Your task to perform on an android device: Check the settings for the Google Chrome app Image 0: 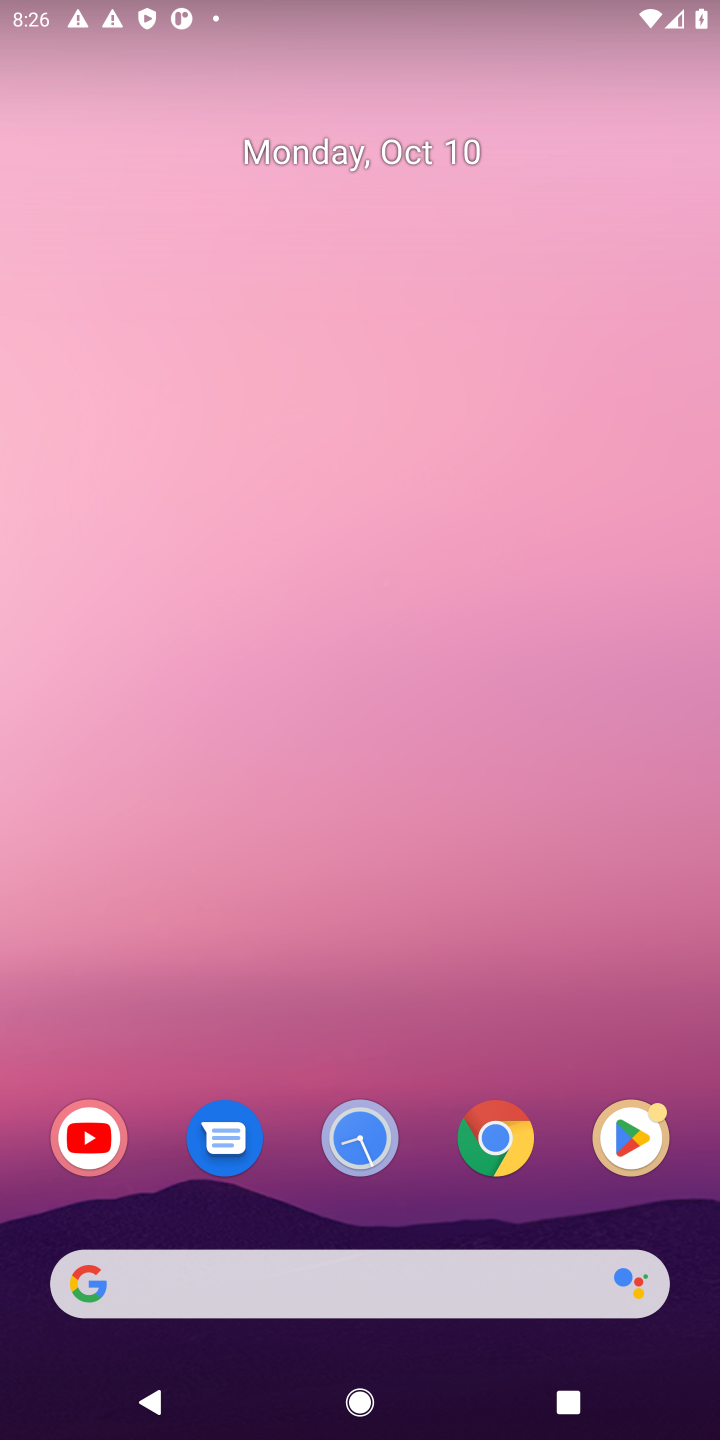
Step 0: click (500, 1142)
Your task to perform on an android device: Check the settings for the Google Chrome app Image 1: 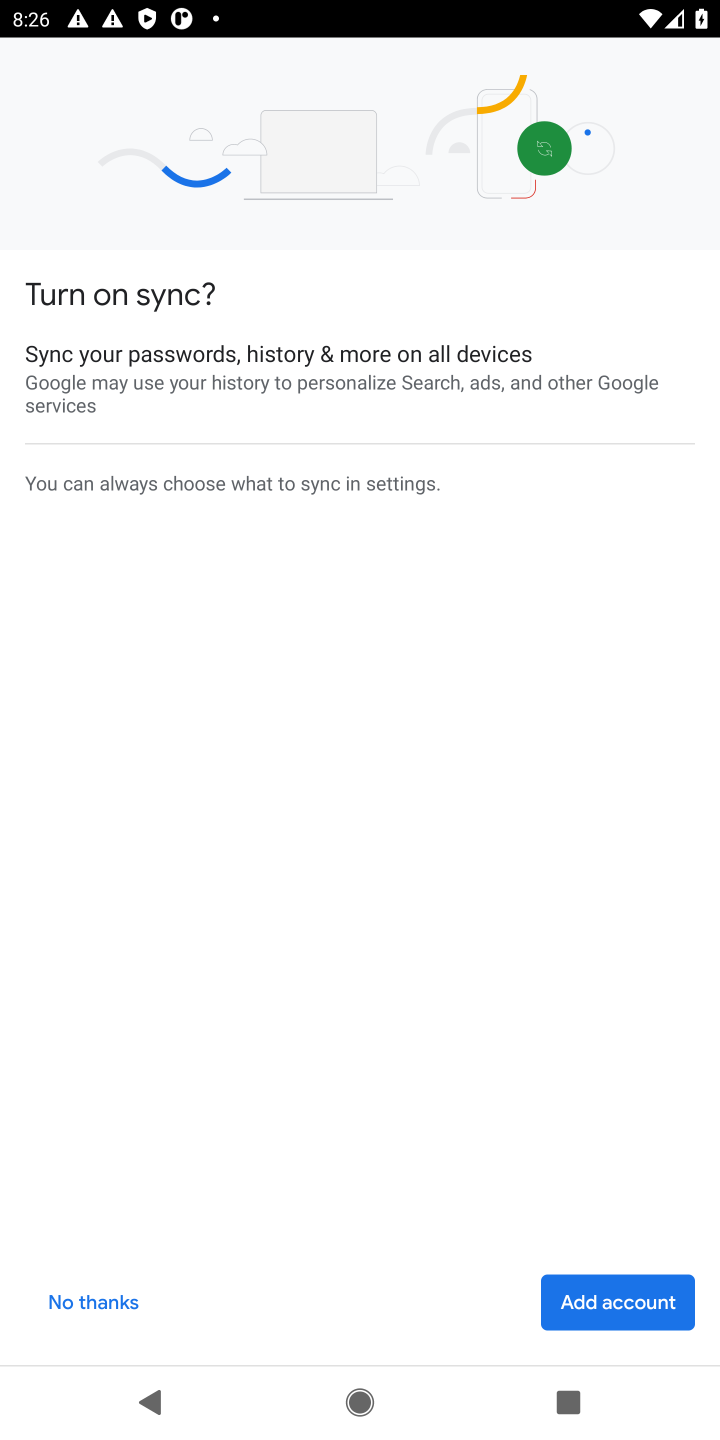
Step 1: click (75, 1304)
Your task to perform on an android device: Check the settings for the Google Chrome app Image 2: 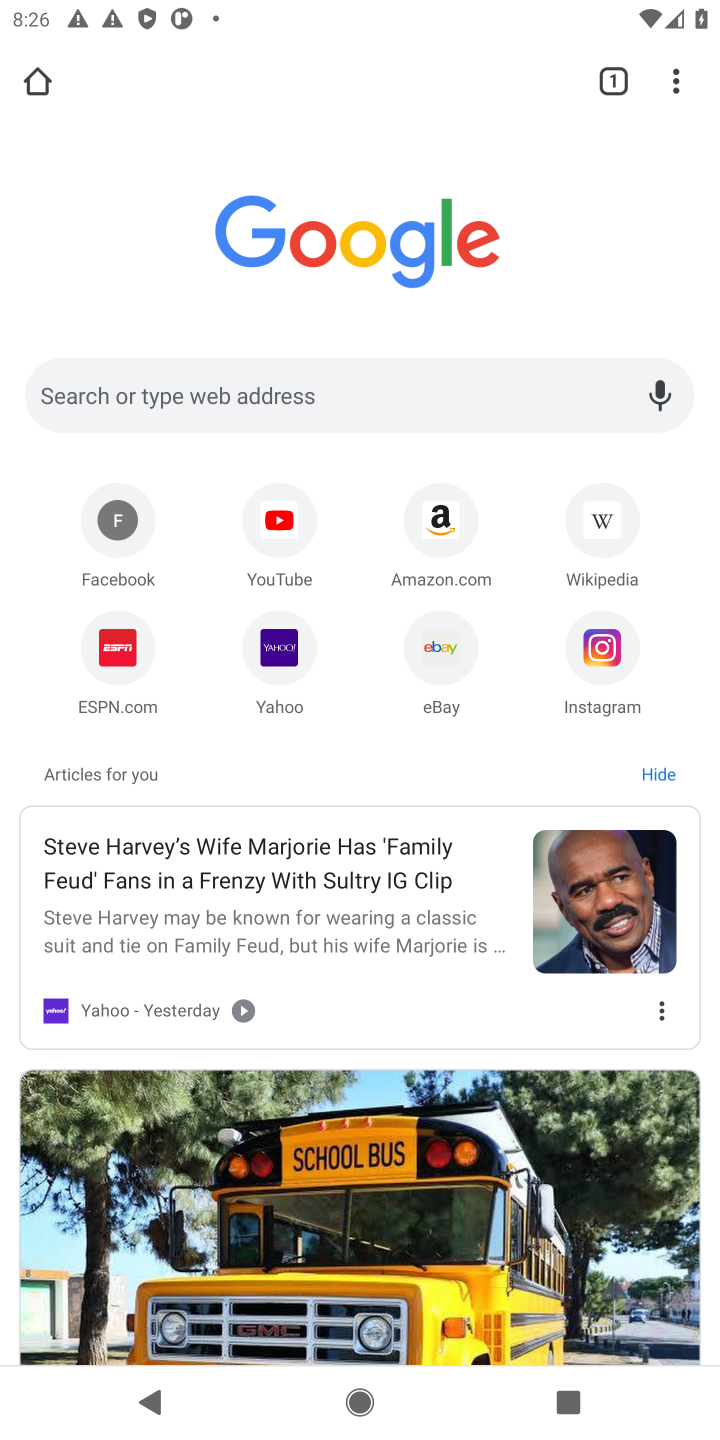
Step 2: click (678, 85)
Your task to perform on an android device: Check the settings for the Google Chrome app Image 3: 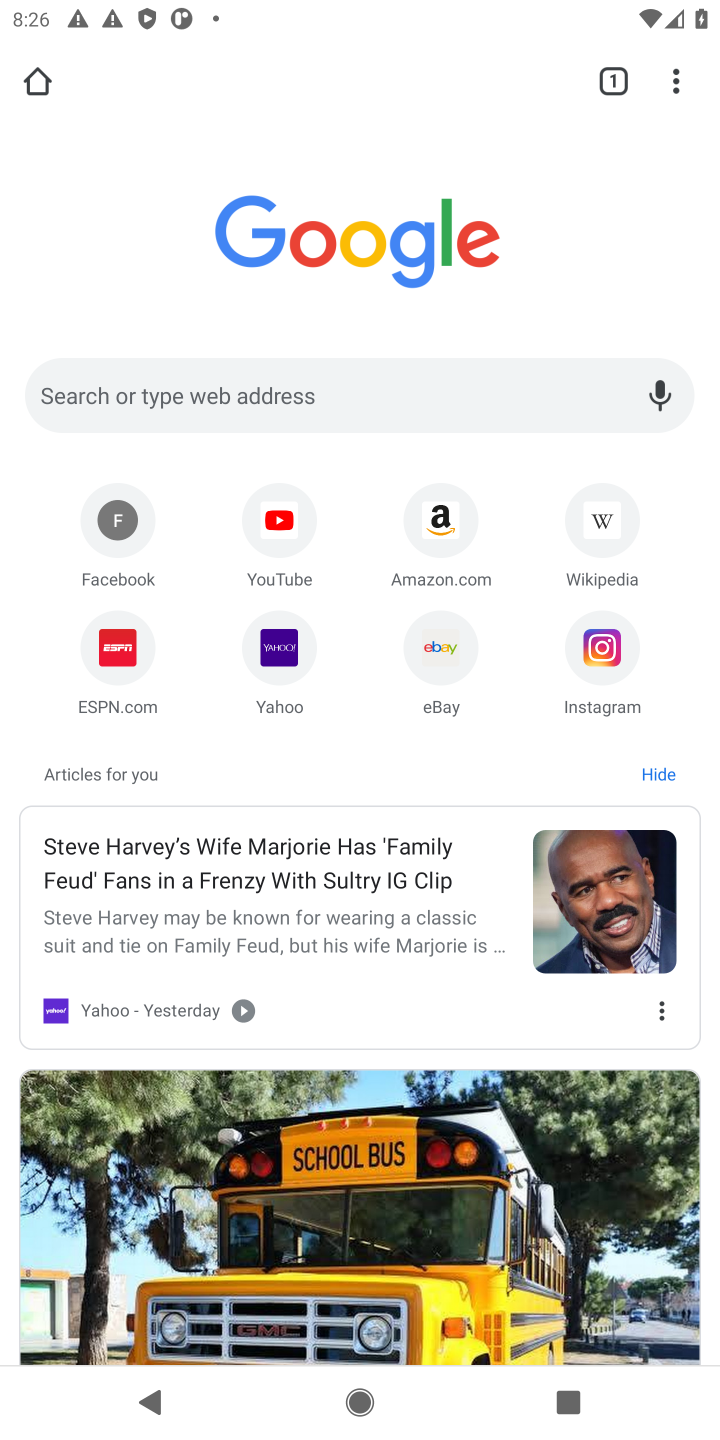
Step 3: click (686, 78)
Your task to perform on an android device: Check the settings for the Google Chrome app Image 4: 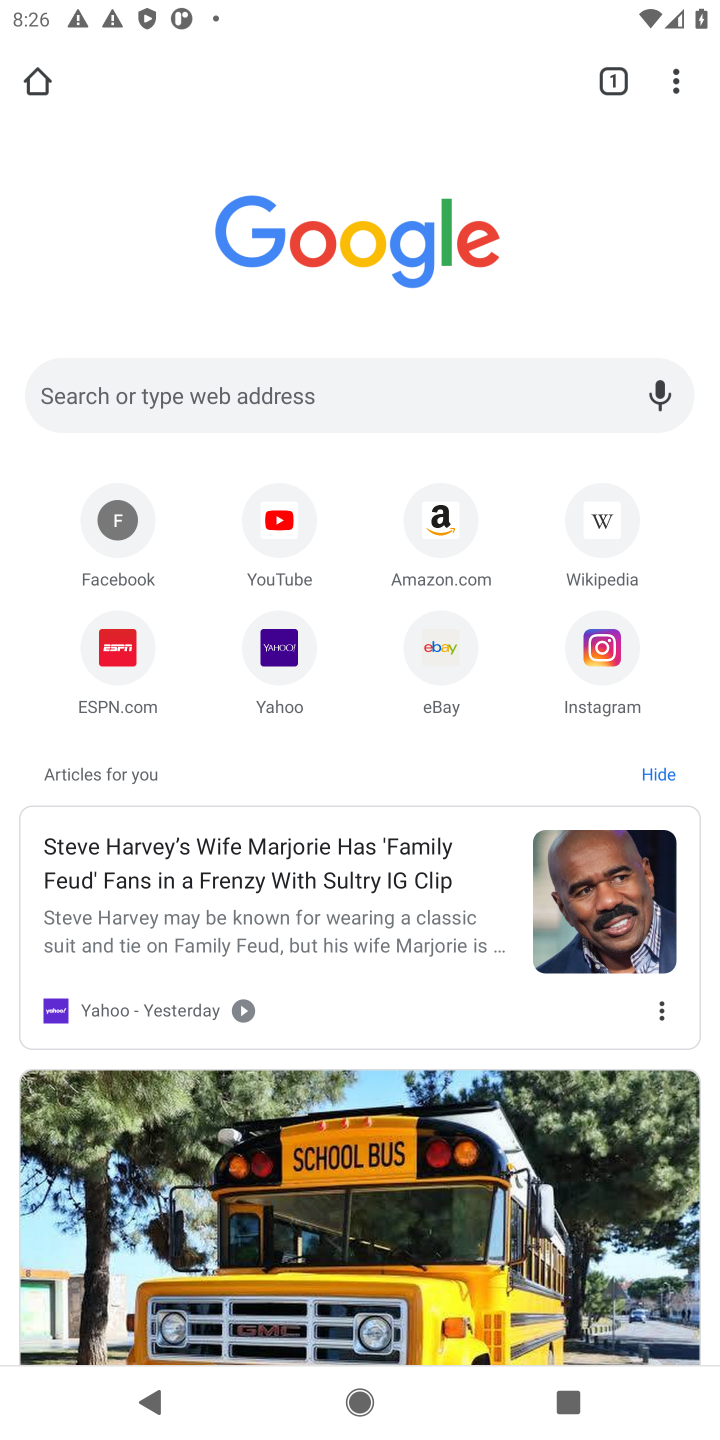
Step 4: click (694, 78)
Your task to perform on an android device: Check the settings for the Google Chrome app Image 5: 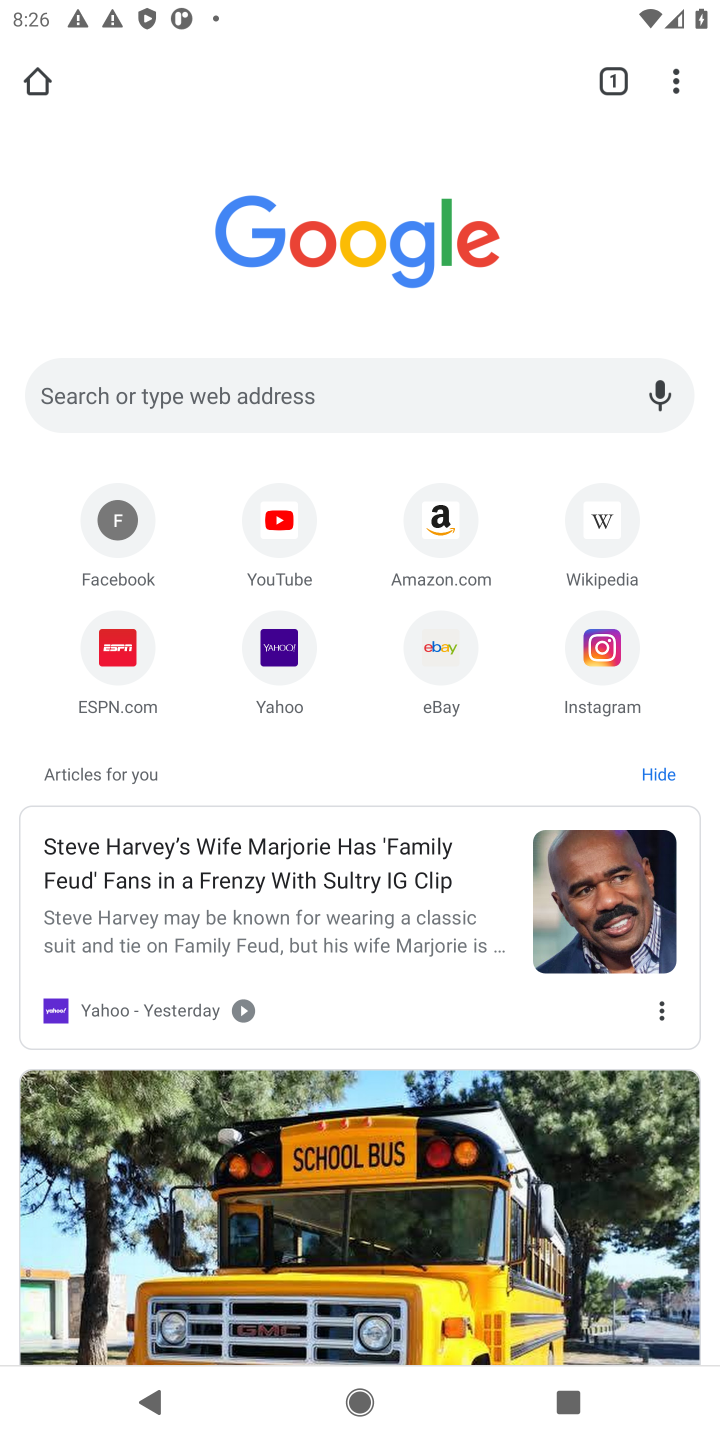
Step 5: click (705, 76)
Your task to perform on an android device: Check the settings for the Google Chrome app Image 6: 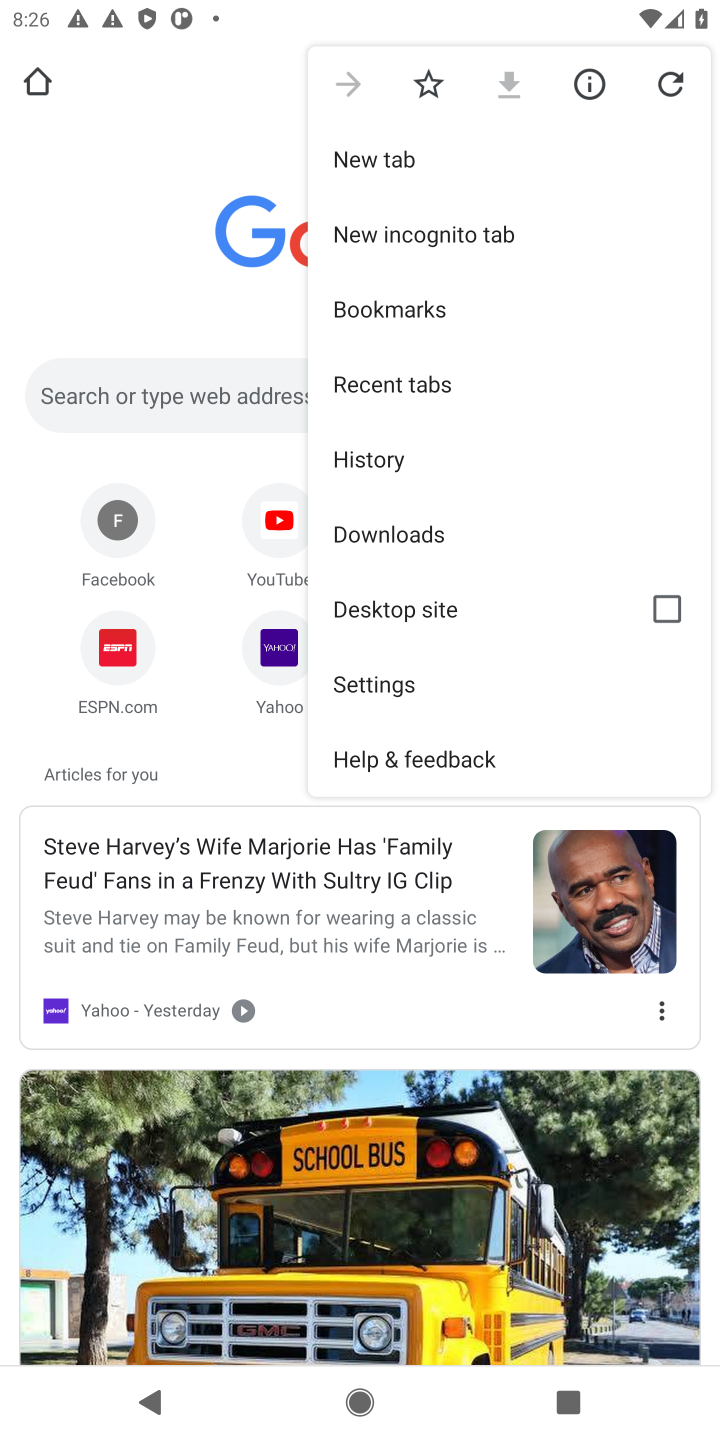
Step 6: click (363, 671)
Your task to perform on an android device: Check the settings for the Google Chrome app Image 7: 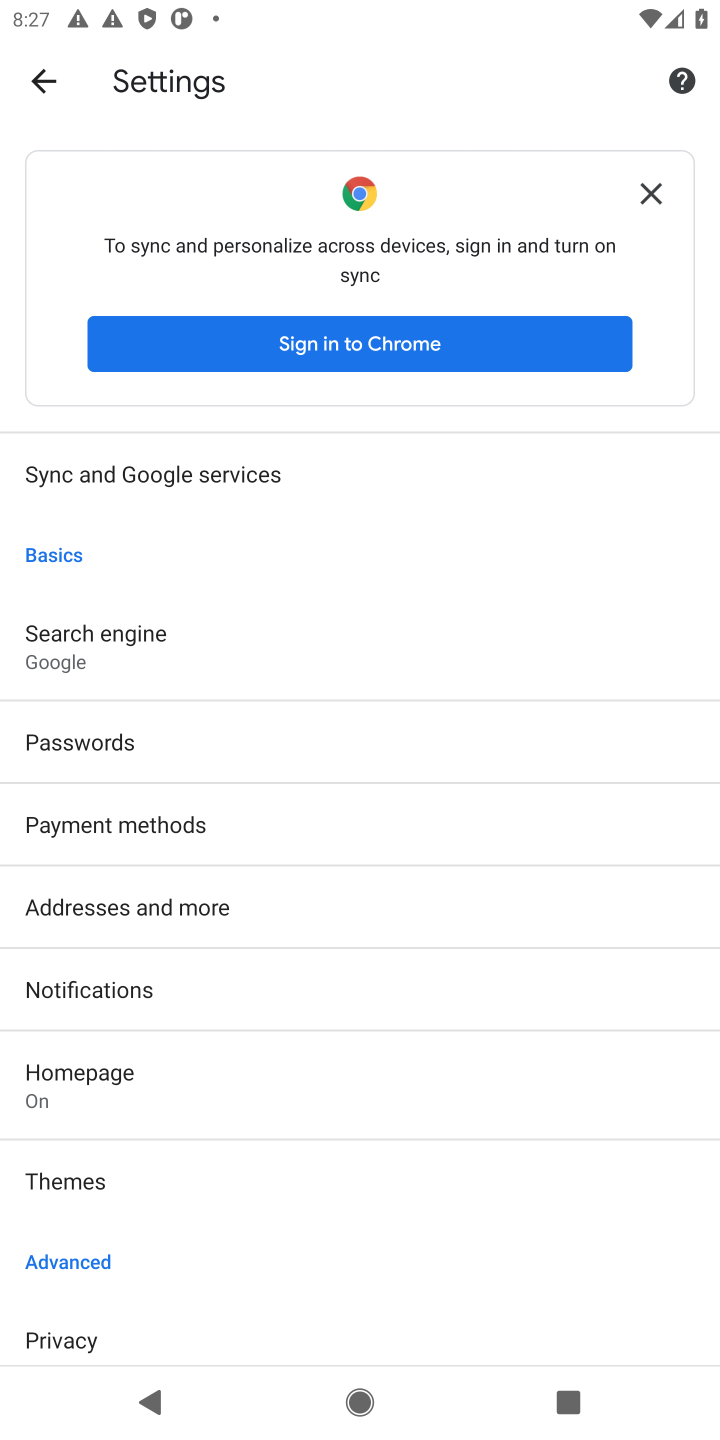
Step 7: task complete